Your task to perform on an android device: toggle pop-ups in chrome Image 0: 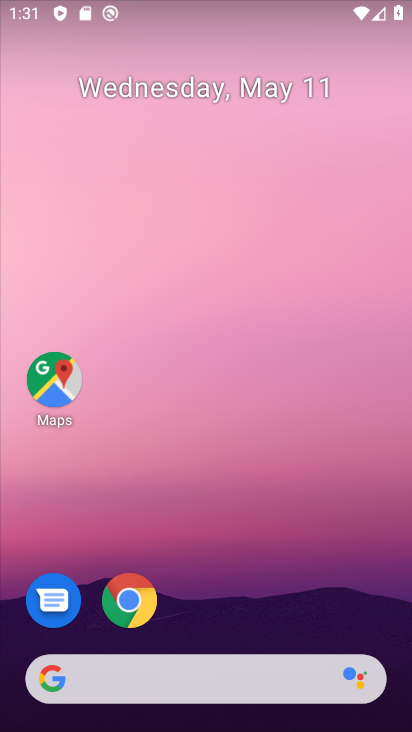
Step 0: drag from (275, 615) to (307, 304)
Your task to perform on an android device: toggle pop-ups in chrome Image 1: 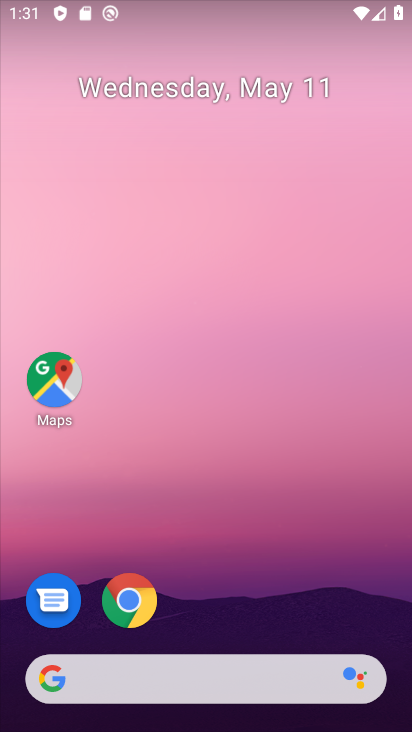
Step 1: drag from (250, 629) to (291, 267)
Your task to perform on an android device: toggle pop-ups in chrome Image 2: 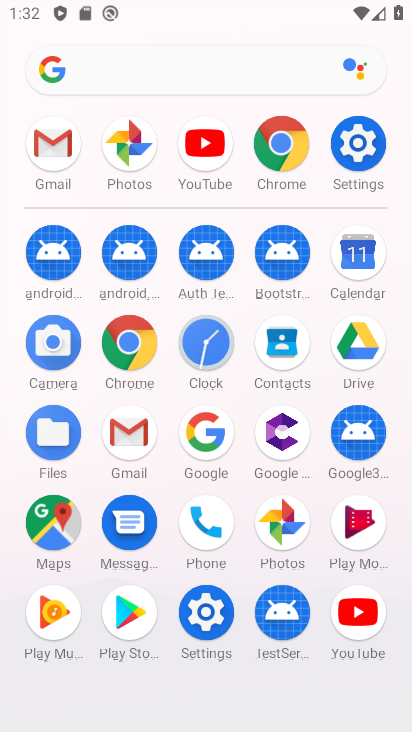
Step 2: click (273, 137)
Your task to perform on an android device: toggle pop-ups in chrome Image 3: 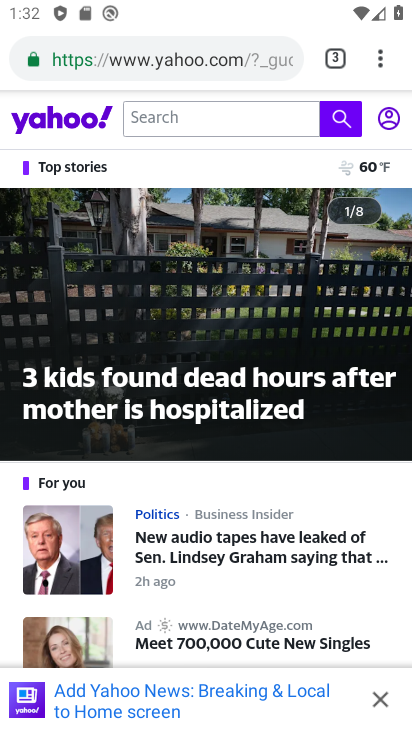
Step 3: click (367, 54)
Your task to perform on an android device: toggle pop-ups in chrome Image 4: 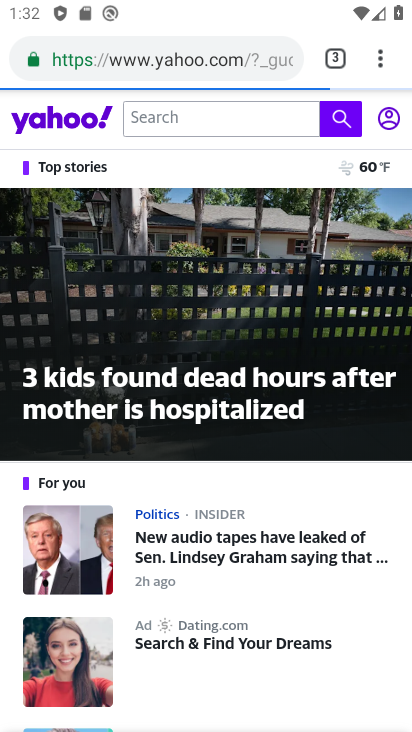
Step 4: click (360, 58)
Your task to perform on an android device: toggle pop-ups in chrome Image 5: 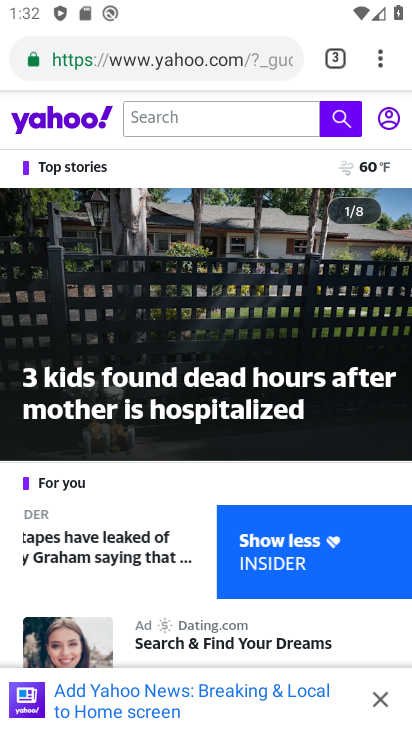
Step 5: click (371, 51)
Your task to perform on an android device: toggle pop-ups in chrome Image 6: 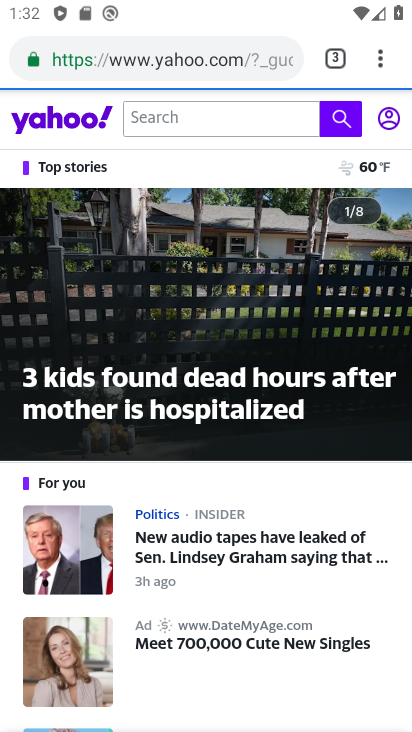
Step 6: click (363, 55)
Your task to perform on an android device: toggle pop-ups in chrome Image 7: 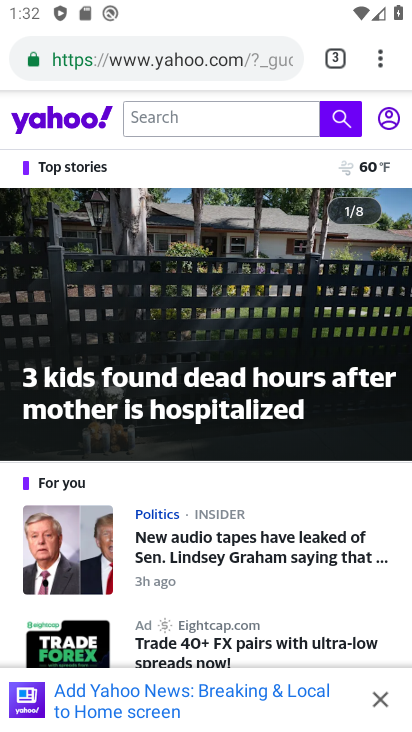
Step 7: click (369, 56)
Your task to perform on an android device: toggle pop-ups in chrome Image 8: 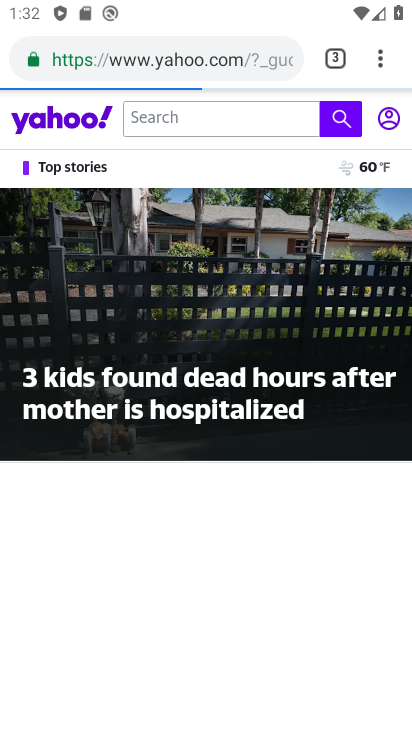
Step 8: click (369, 50)
Your task to perform on an android device: toggle pop-ups in chrome Image 9: 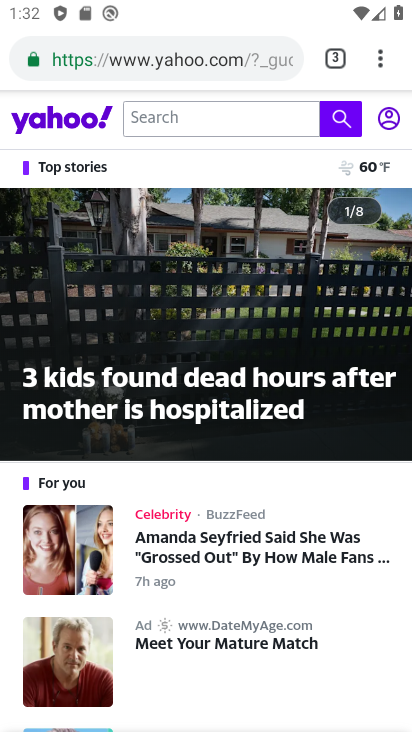
Step 9: click (355, 57)
Your task to perform on an android device: toggle pop-ups in chrome Image 10: 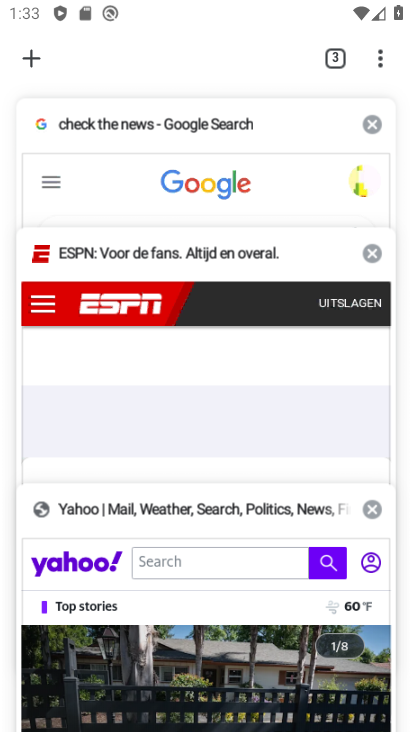
Step 10: click (361, 58)
Your task to perform on an android device: toggle pop-ups in chrome Image 11: 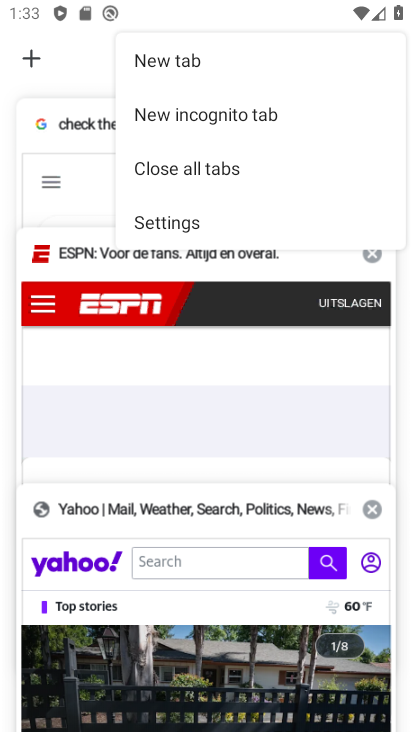
Step 11: click (171, 210)
Your task to perform on an android device: toggle pop-ups in chrome Image 12: 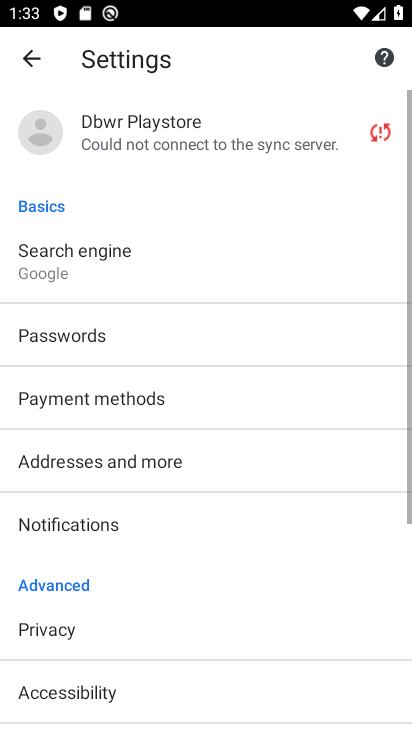
Step 12: drag from (167, 674) to (244, 265)
Your task to perform on an android device: toggle pop-ups in chrome Image 13: 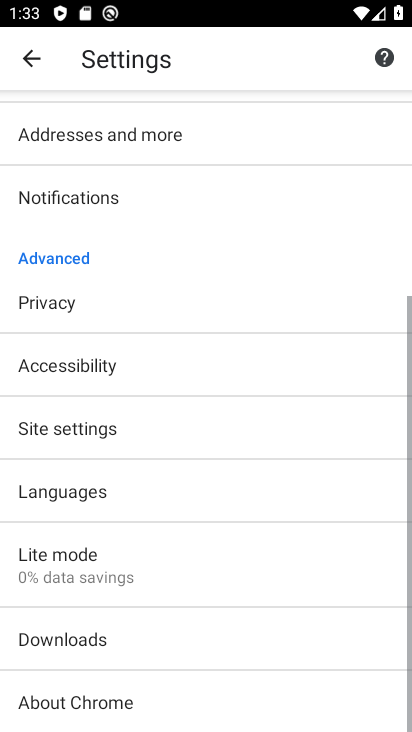
Step 13: drag from (164, 597) to (231, 344)
Your task to perform on an android device: toggle pop-ups in chrome Image 14: 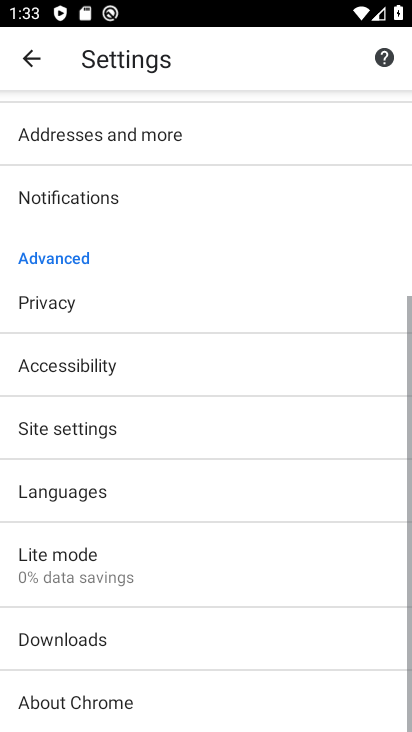
Step 14: click (102, 419)
Your task to perform on an android device: toggle pop-ups in chrome Image 15: 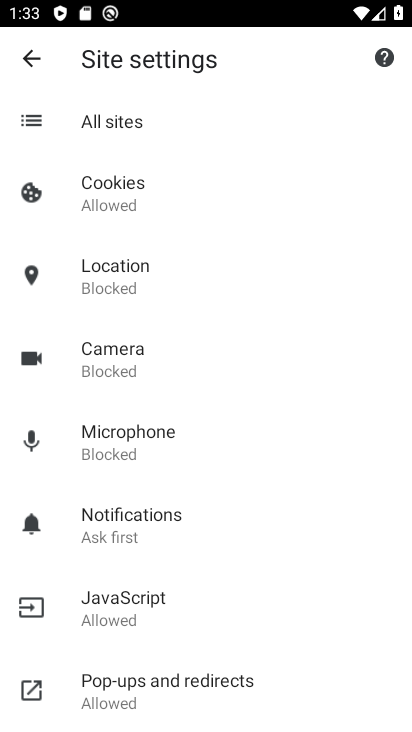
Step 15: click (143, 675)
Your task to perform on an android device: toggle pop-ups in chrome Image 16: 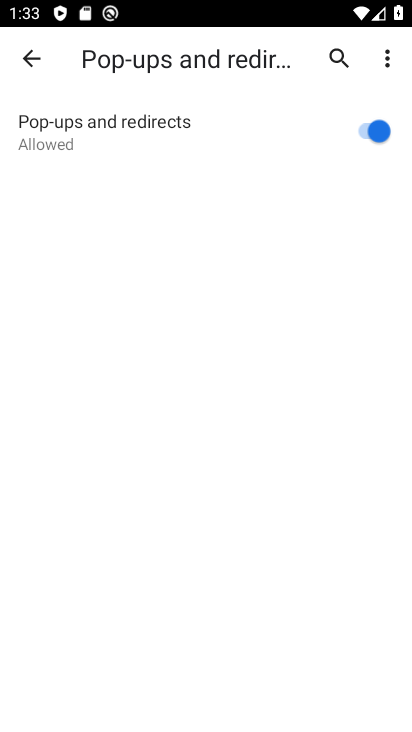
Step 16: click (363, 131)
Your task to perform on an android device: toggle pop-ups in chrome Image 17: 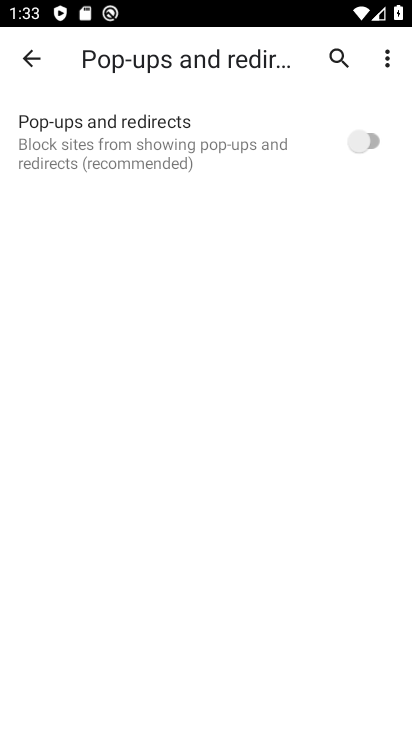
Step 17: task complete